Your task to perform on an android device: Open Chrome and go to the settings page Image 0: 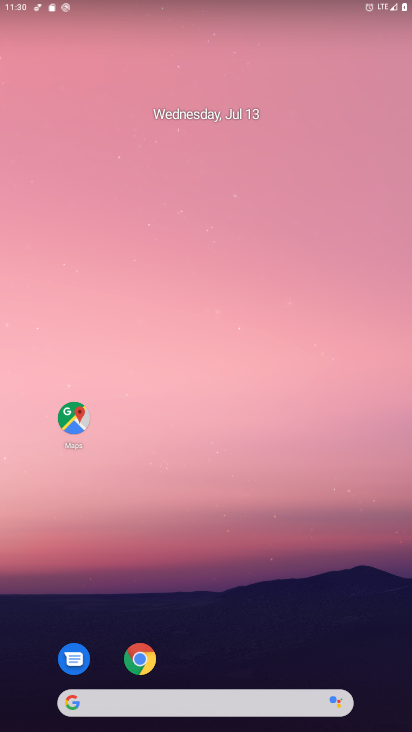
Step 0: press home button
Your task to perform on an android device: Open Chrome and go to the settings page Image 1: 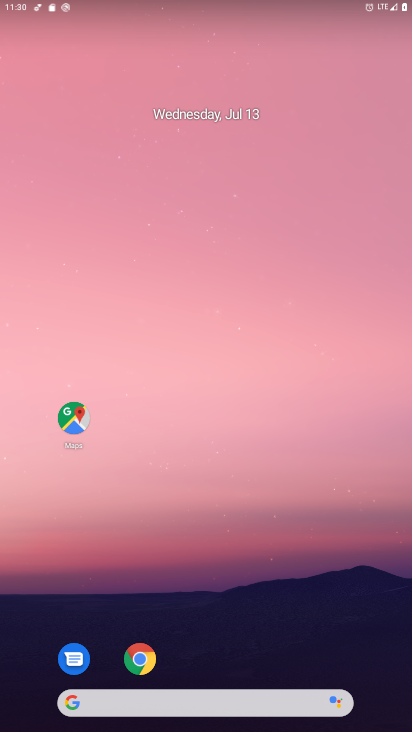
Step 1: click (137, 654)
Your task to perform on an android device: Open Chrome and go to the settings page Image 2: 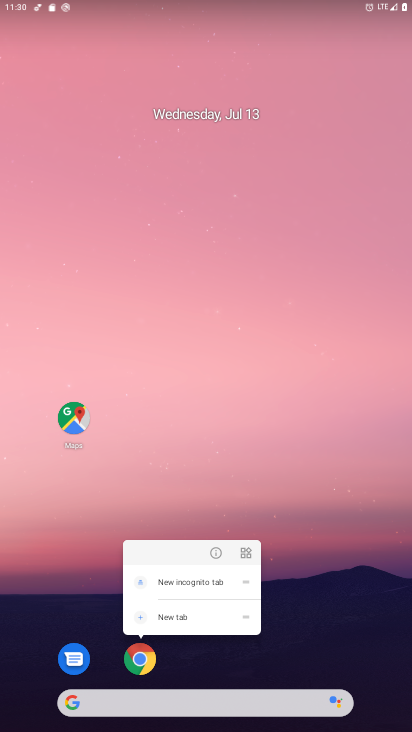
Step 2: click (137, 654)
Your task to perform on an android device: Open Chrome and go to the settings page Image 3: 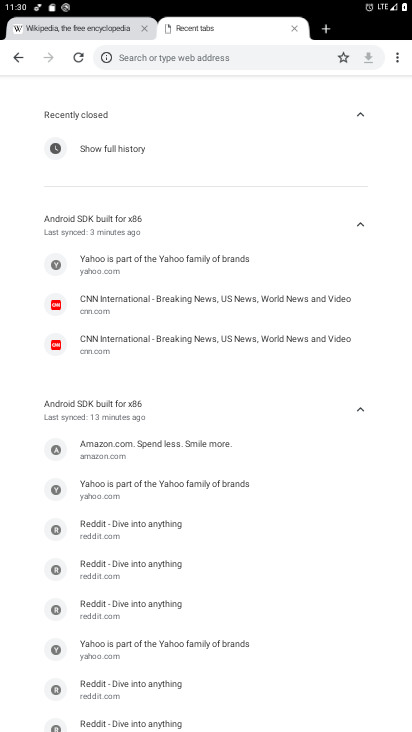
Step 3: click (399, 55)
Your task to perform on an android device: Open Chrome and go to the settings page Image 4: 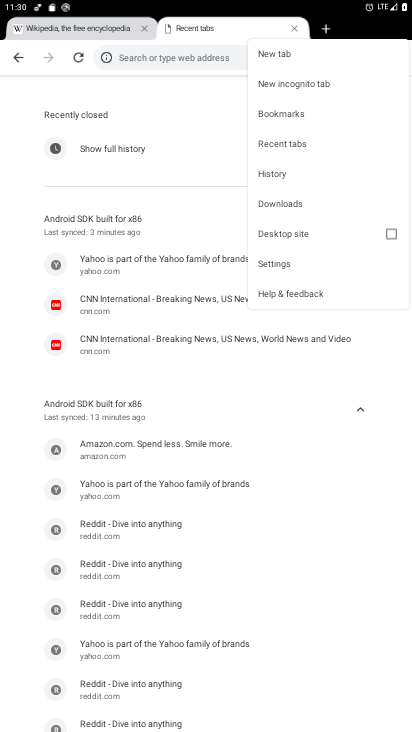
Step 4: click (288, 267)
Your task to perform on an android device: Open Chrome and go to the settings page Image 5: 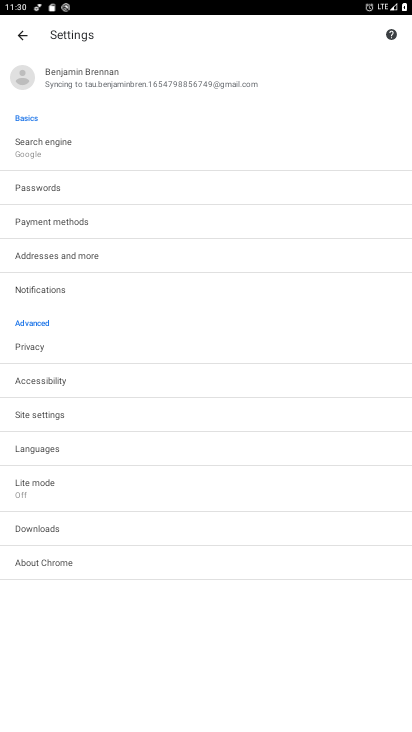
Step 5: task complete